Your task to perform on an android device: Open Wikipedia Image 0: 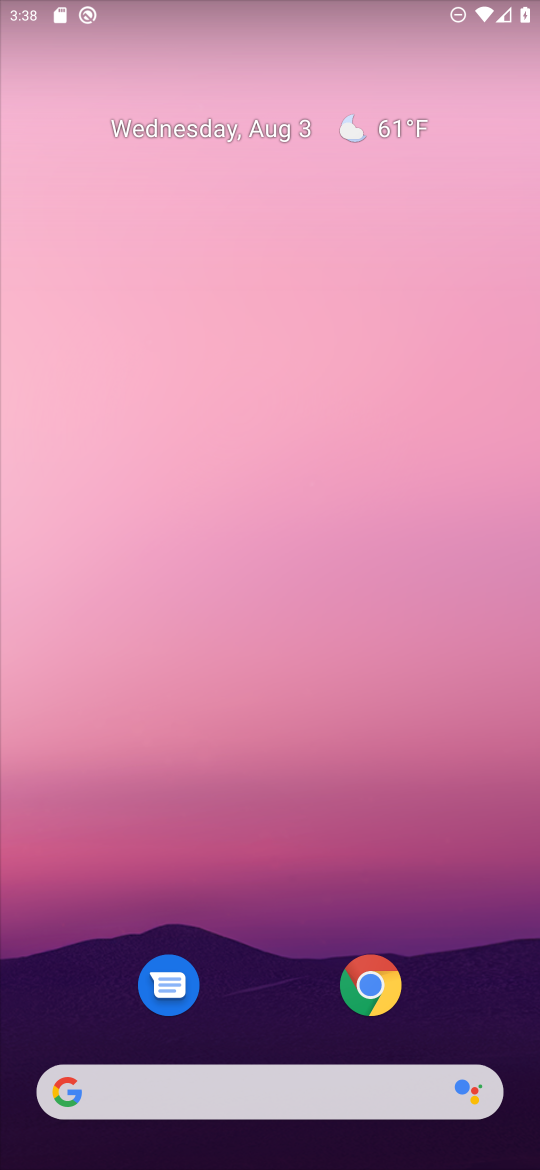
Step 0: click (360, 980)
Your task to perform on an android device: Open Wikipedia Image 1: 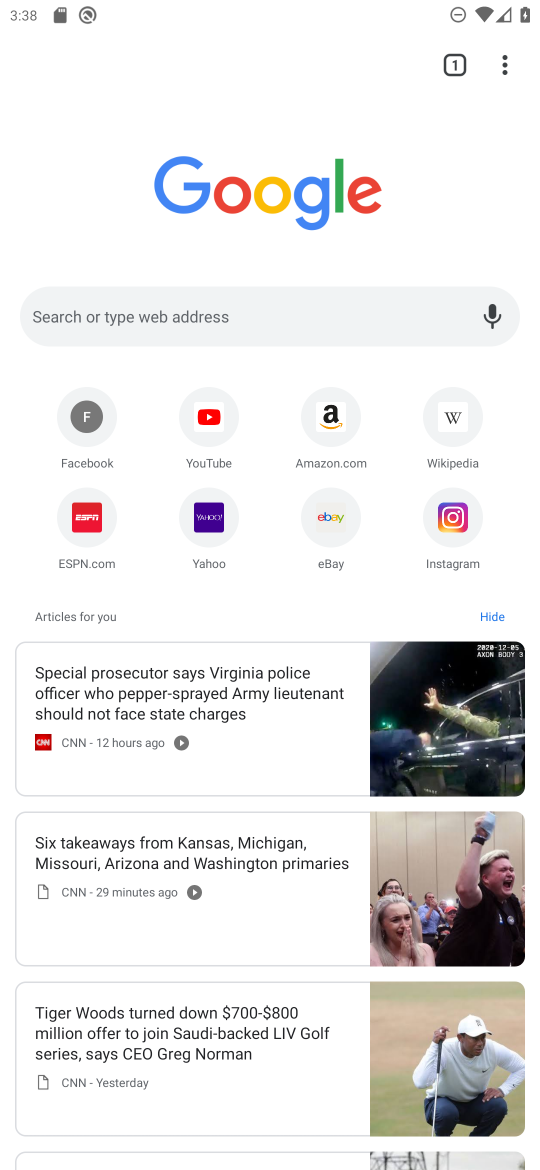
Step 1: click (447, 416)
Your task to perform on an android device: Open Wikipedia Image 2: 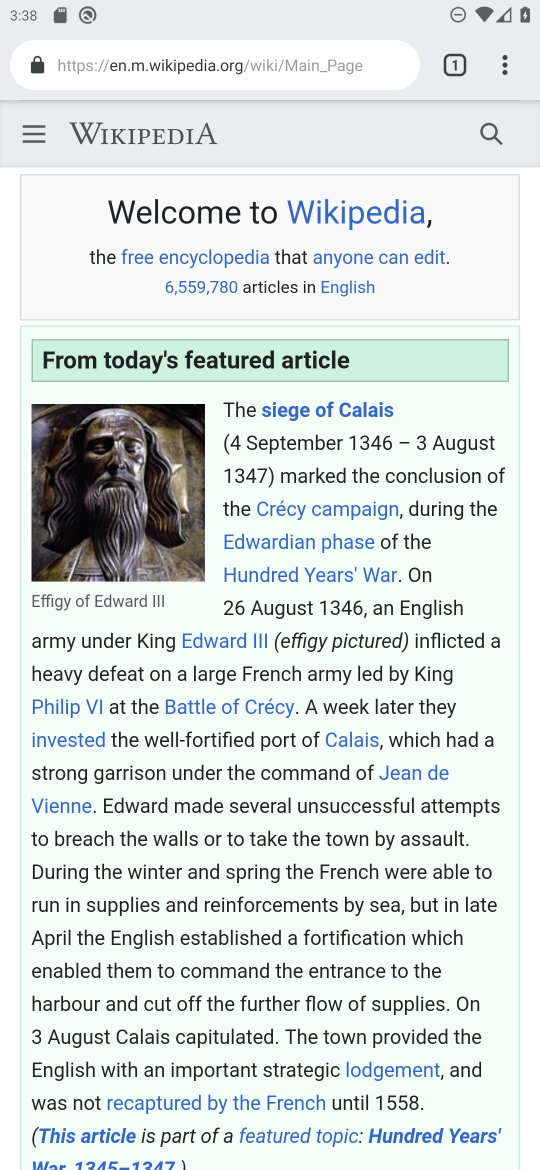
Step 2: task complete